Your task to perform on an android device: What's on my calendar today? Image 0: 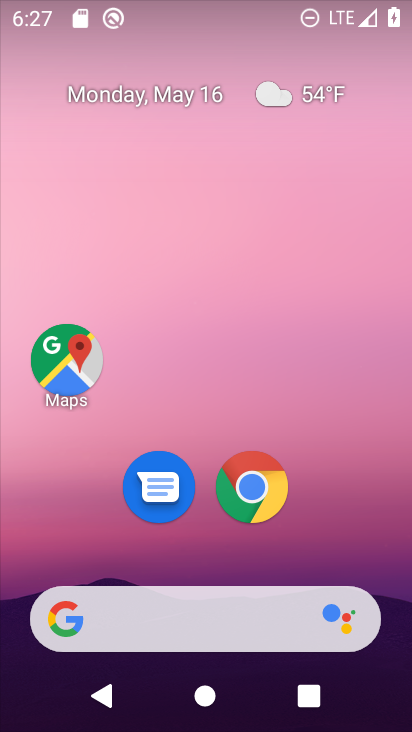
Step 0: drag from (192, 568) to (184, 95)
Your task to perform on an android device: What's on my calendar today? Image 1: 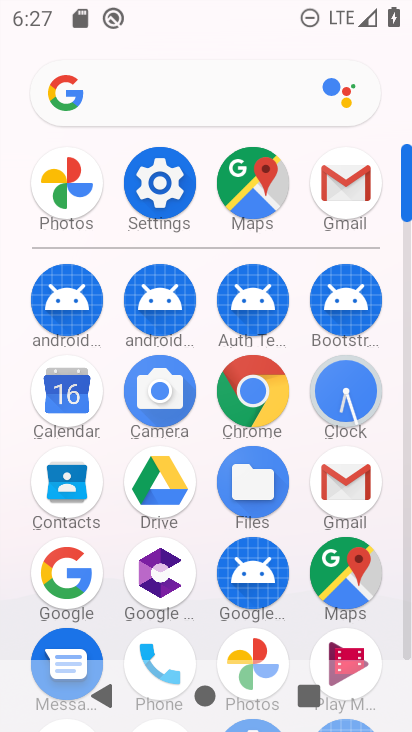
Step 1: click (64, 402)
Your task to perform on an android device: What's on my calendar today? Image 2: 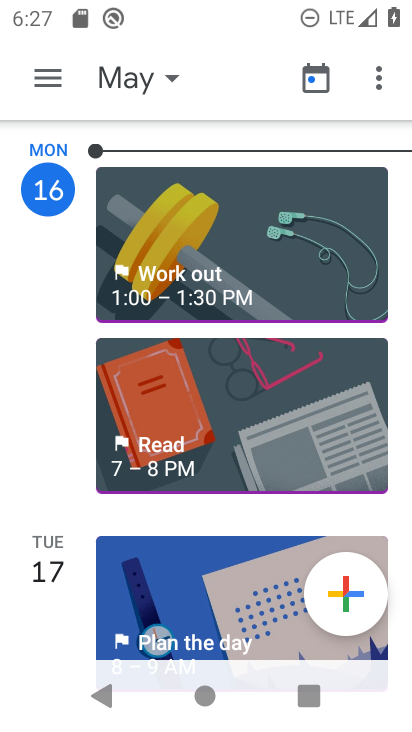
Step 2: click (143, 84)
Your task to perform on an android device: What's on my calendar today? Image 3: 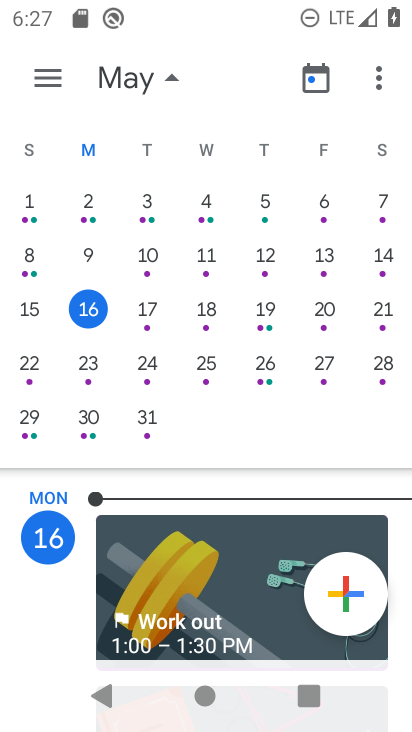
Step 3: task complete